Your task to perform on an android device: all mails in gmail Image 0: 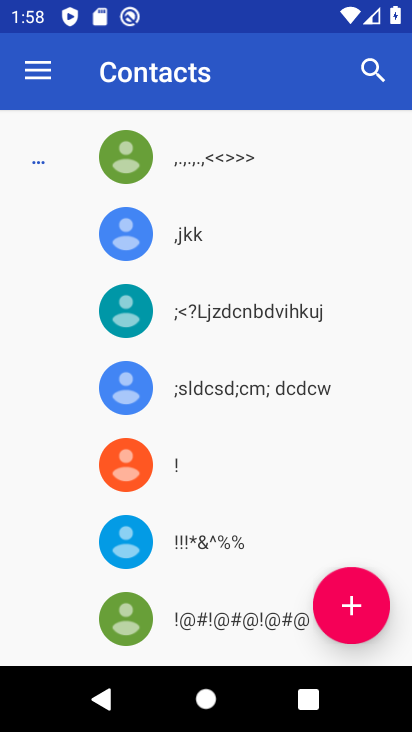
Step 0: press home button
Your task to perform on an android device: all mails in gmail Image 1: 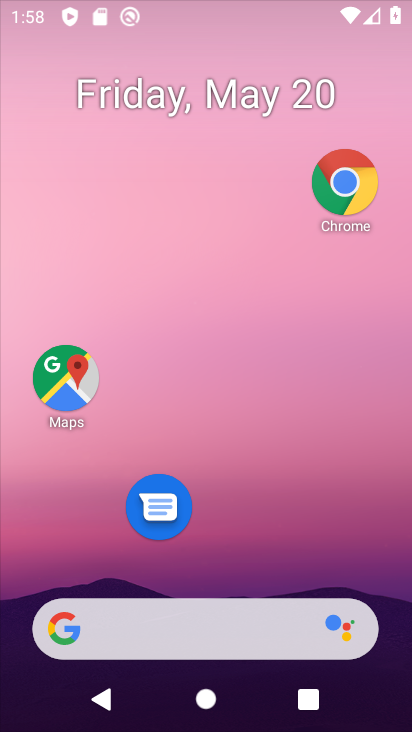
Step 1: drag from (246, 532) to (248, 91)
Your task to perform on an android device: all mails in gmail Image 2: 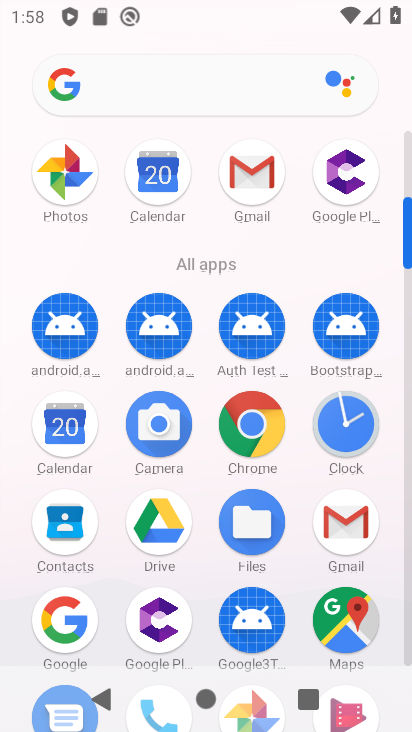
Step 2: click (245, 175)
Your task to perform on an android device: all mails in gmail Image 3: 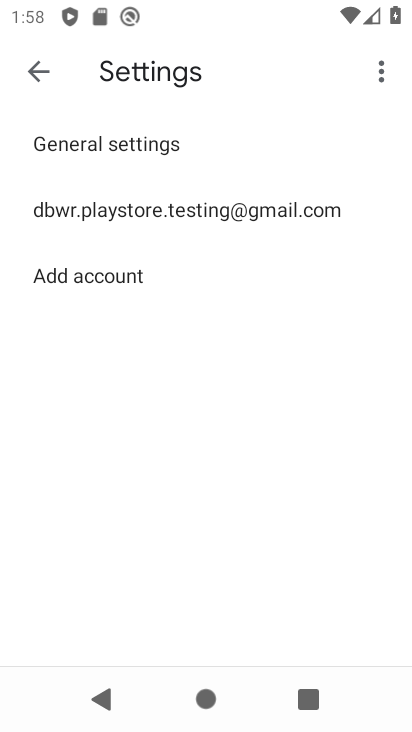
Step 3: click (124, 217)
Your task to perform on an android device: all mails in gmail Image 4: 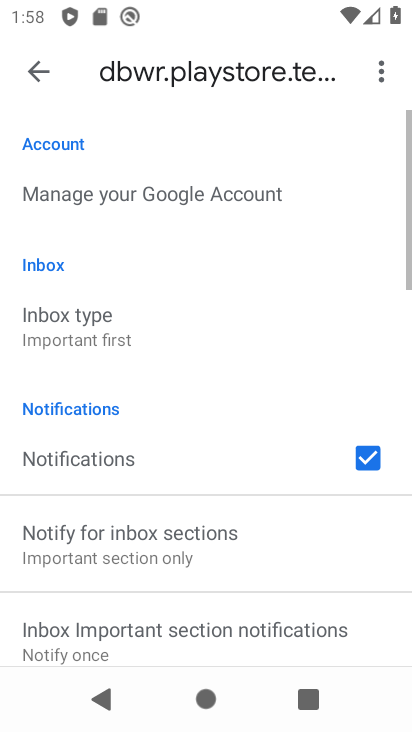
Step 4: drag from (204, 597) to (245, 196)
Your task to perform on an android device: all mails in gmail Image 5: 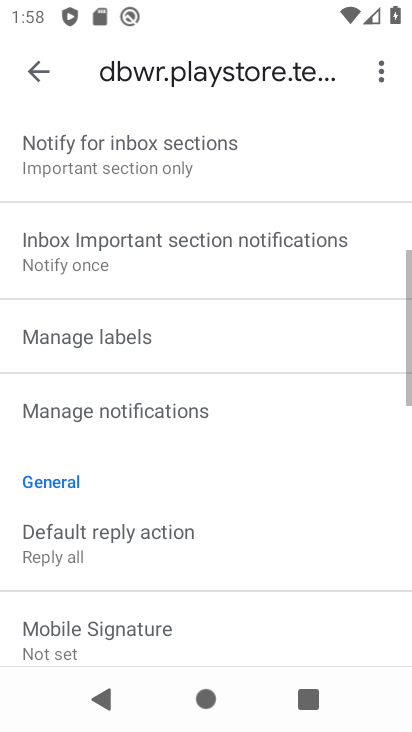
Step 5: press back button
Your task to perform on an android device: all mails in gmail Image 6: 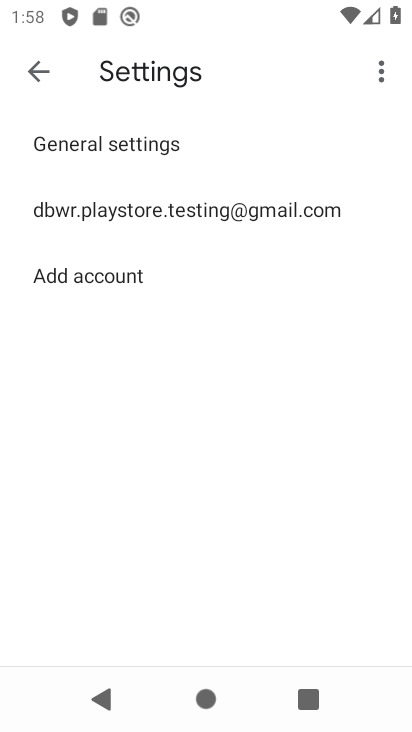
Step 6: press back button
Your task to perform on an android device: all mails in gmail Image 7: 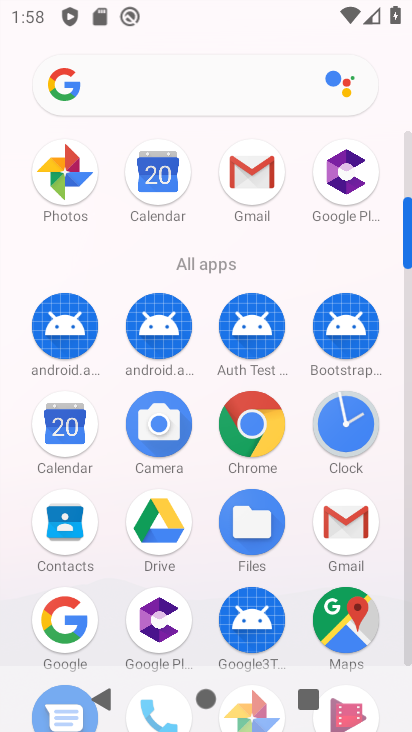
Step 7: click (221, 182)
Your task to perform on an android device: all mails in gmail Image 8: 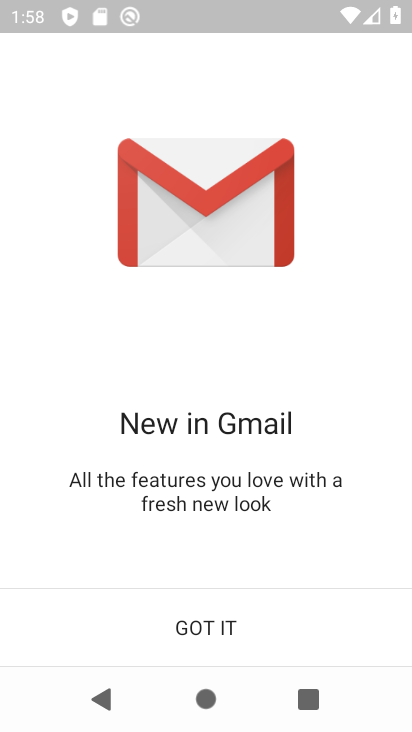
Step 8: click (215, 637)
Your task to perform on an android device: all mails in gmail Image 9: 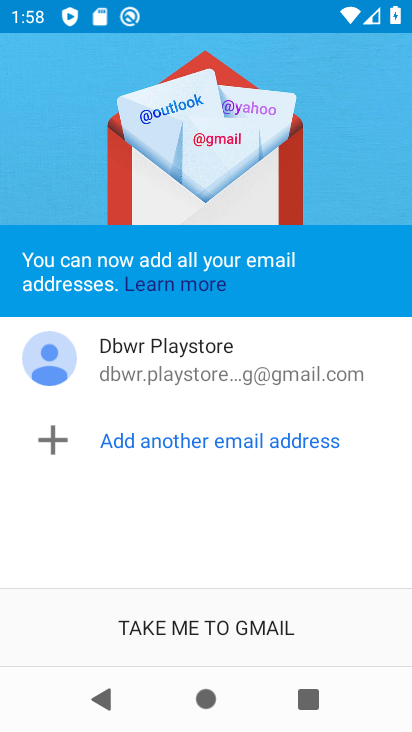
Step 9: click (216, 633)
Your task to perform on an android device: all mails in gmail Image 10: 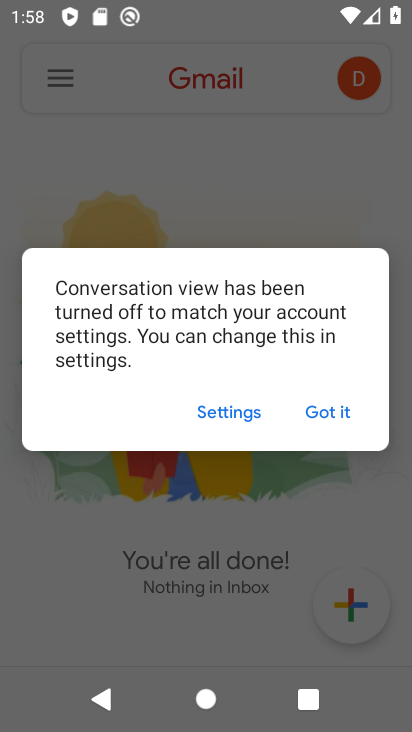
Step 10: click (347, 410)
Your task to perform on an android device: all mails in gmail Image 11: 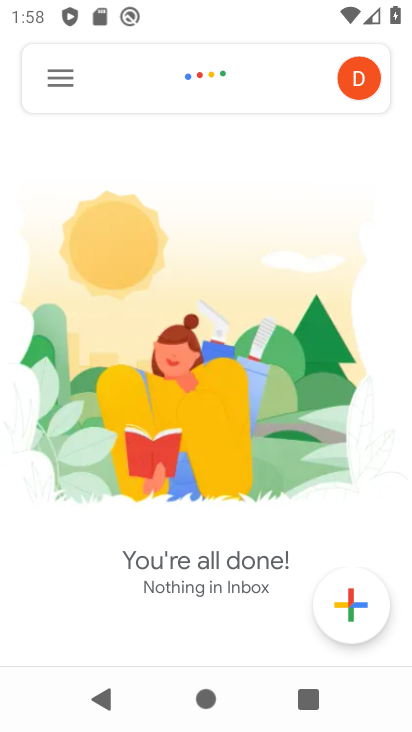
Step 11: click (56, 70)
Your task to perform on an android device: all mails in gmail Image 12: 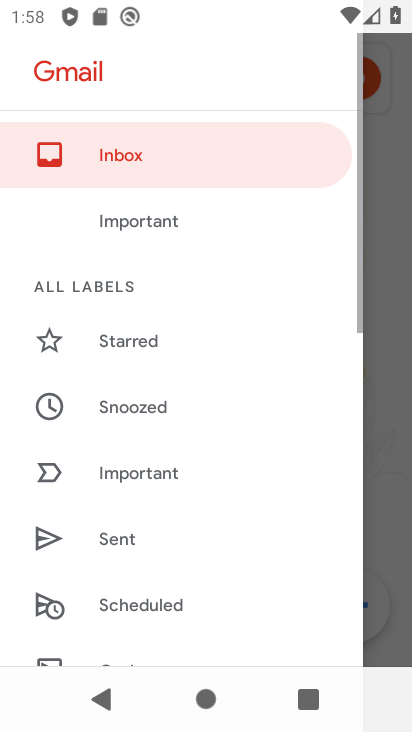
Step 12: drag from (142, 614) to (214, 154)
Your task to perform on an android device: all mails in gmail Image 13: 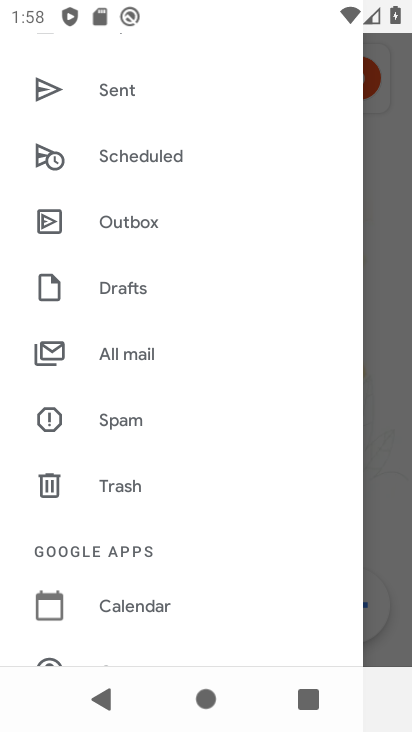
Step 13: click (138, 361)
Your task to perform on an android device: all mails in gmail Image 14: 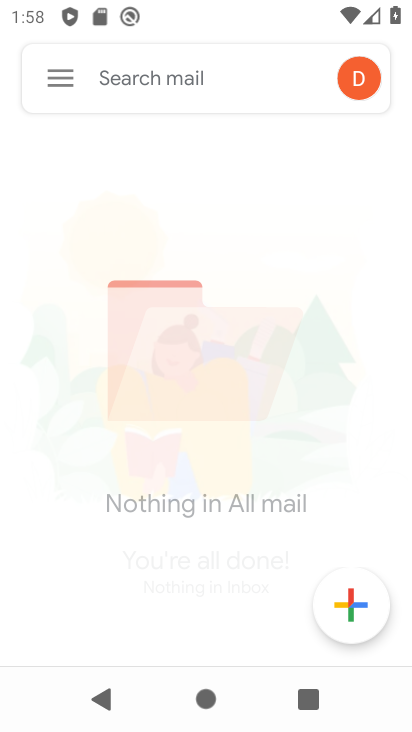
Step 14: task complete